Your task to perform on an android device: turn off airplane mode Image 0: 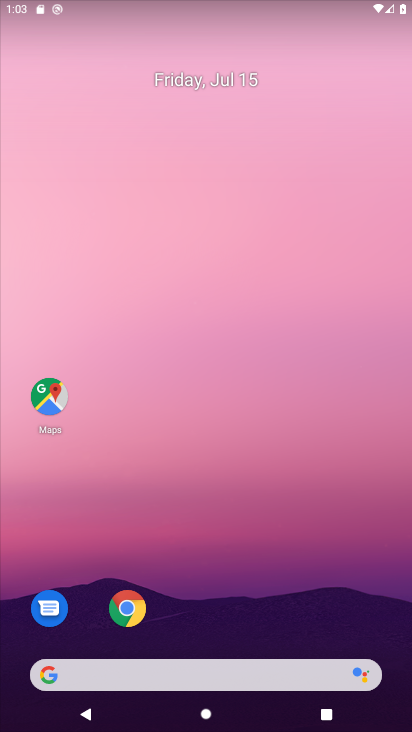
Step 0: drag from (228, 654) to (394, 231)
Your task to perform on an android device: turn off airplane mode Image 1: 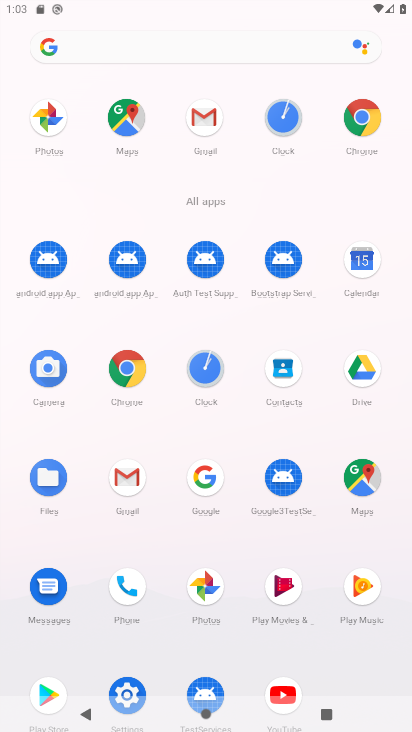
Step 1: click (147, 695)
Your task to perform on an android device: turn off airplane mode Image 2: 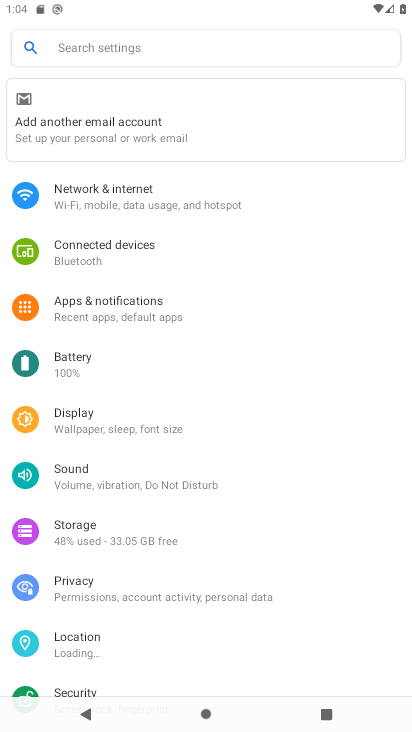
Step 2: click (176, 209)
Your task to perform on an android device: turn off airplane mode Image 3: 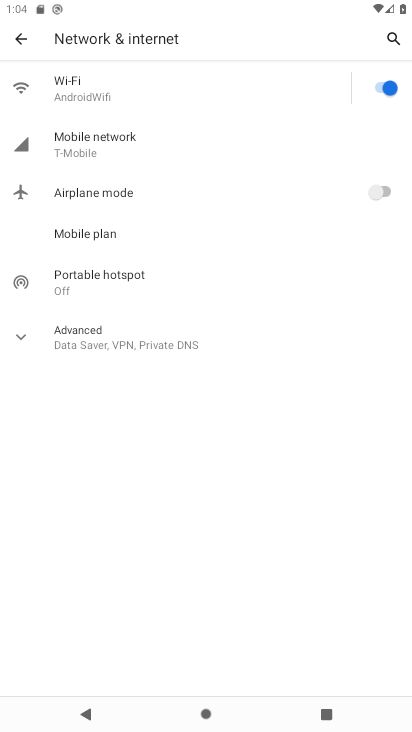
Step 3: task complete